Your task to perform on an android device: Open calendar and show me the second week of next month Image 0: 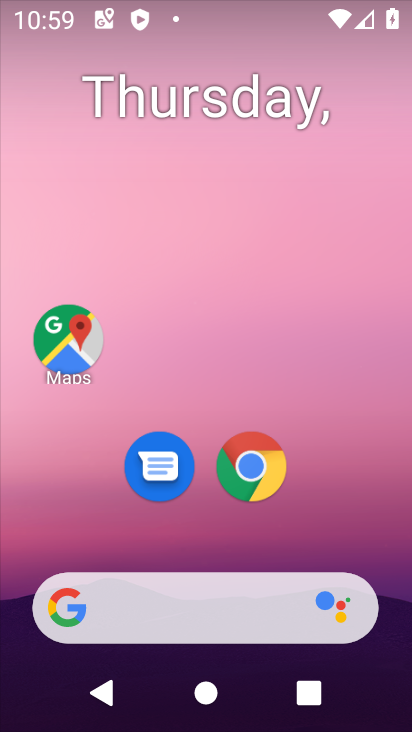
Step 0: drag from (233, 547) to (158, 29)
Your task to perform on an android device: Open calendar and show me the second week of next month Image 1: 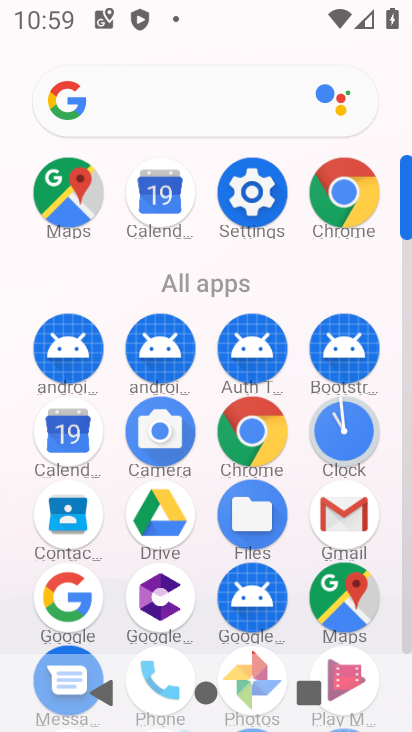
Step 1: click (68, 437)
Your task to perform on an android device: Open calendar and show me the second week of next month Image 2: 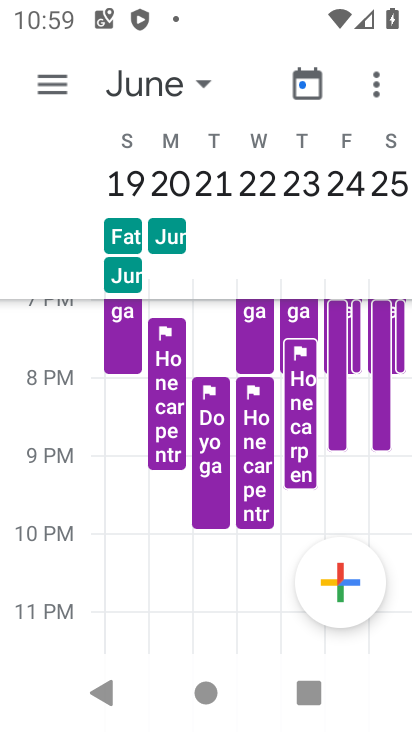
Step 2: task complete